Your task to perform on an android device: turn off location Image 0: 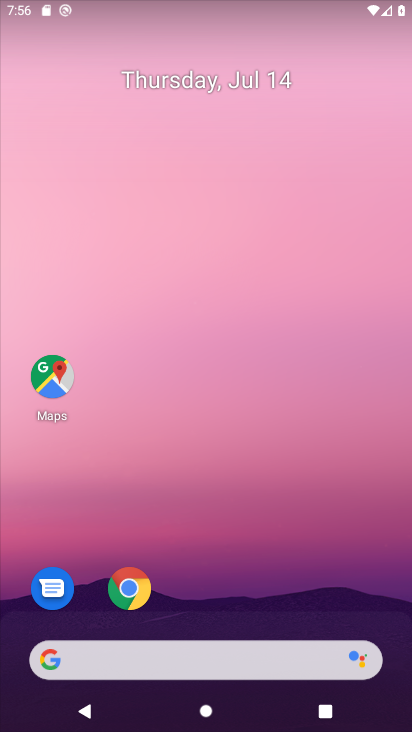
Step 0: drag from (211, 623) to (192, 155)
Your task to perform on an android device: turn off location Image 1: 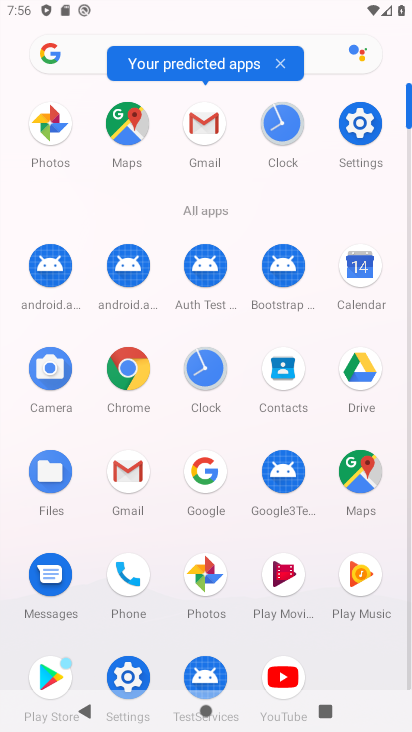
Step 1: click (122, 674)
Your task to perform on an android device: turn off location Image 2: 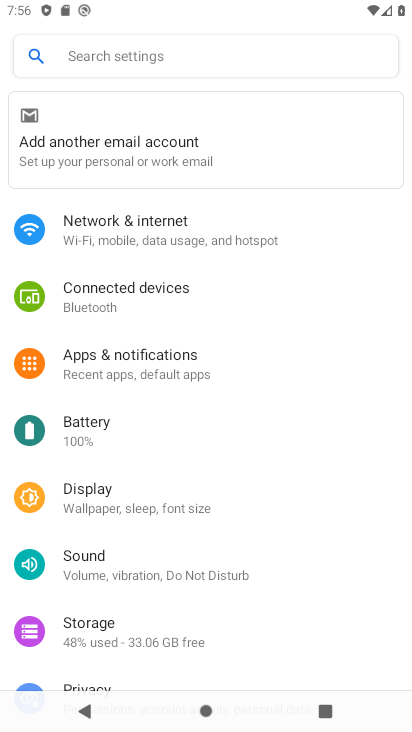
Step 2: drag from (121, 631) to (184, 300)
Your task to perform on an android device: turn off location Image 3: 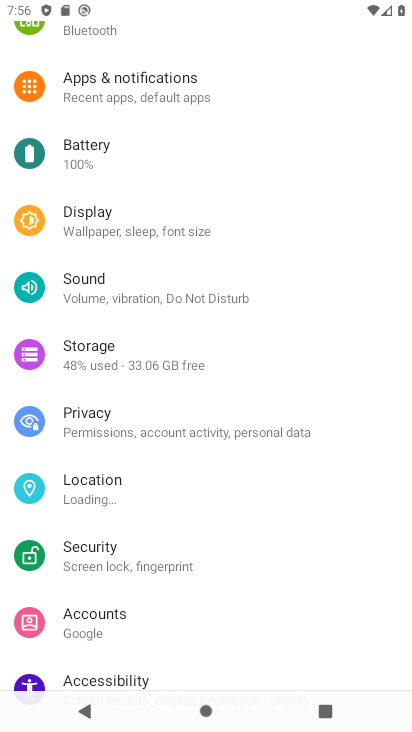
Step 3: click (89, 599)
Your task to perform on an android device: turn off location Image 4: 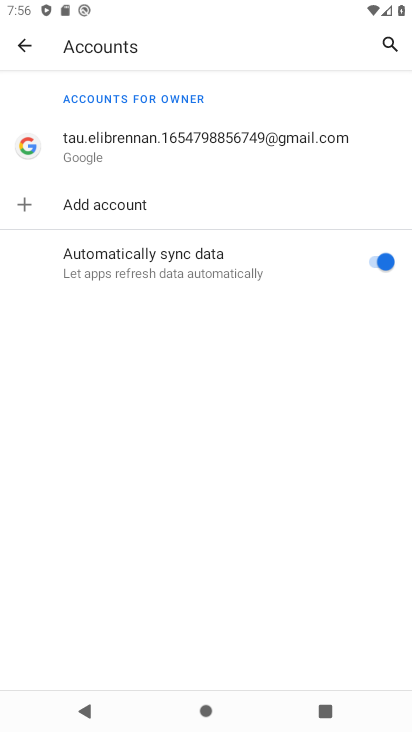
Step 4: click (25, 36)
Your task to perform on an android device: turn off location Image 5: 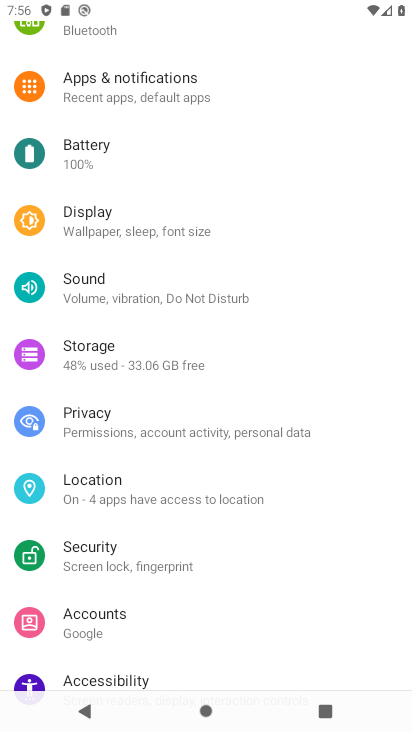
Step 5: click (119, 488)
Your task to perform on an android device: turn off location Image 6: 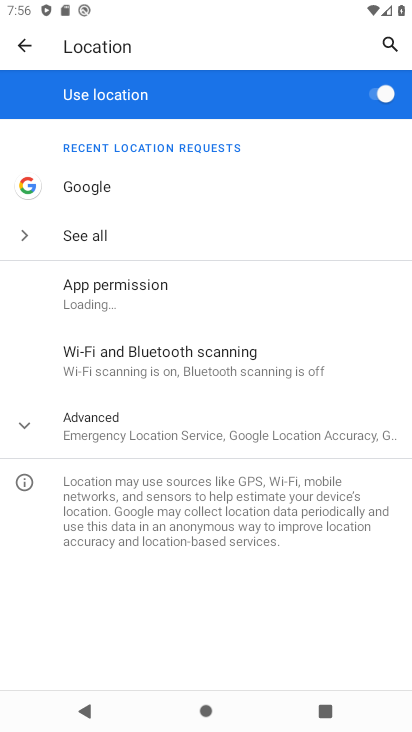
Step 6: click (362, 92)
Your task to perform on an android device: turn off location Image 7: 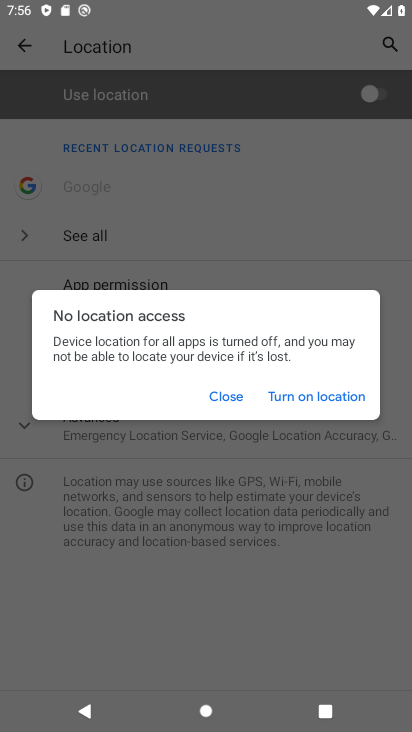
Step 7: task complete